Your task to perform on an android device: Open the phone app and click the voicemail tab. Image 0: 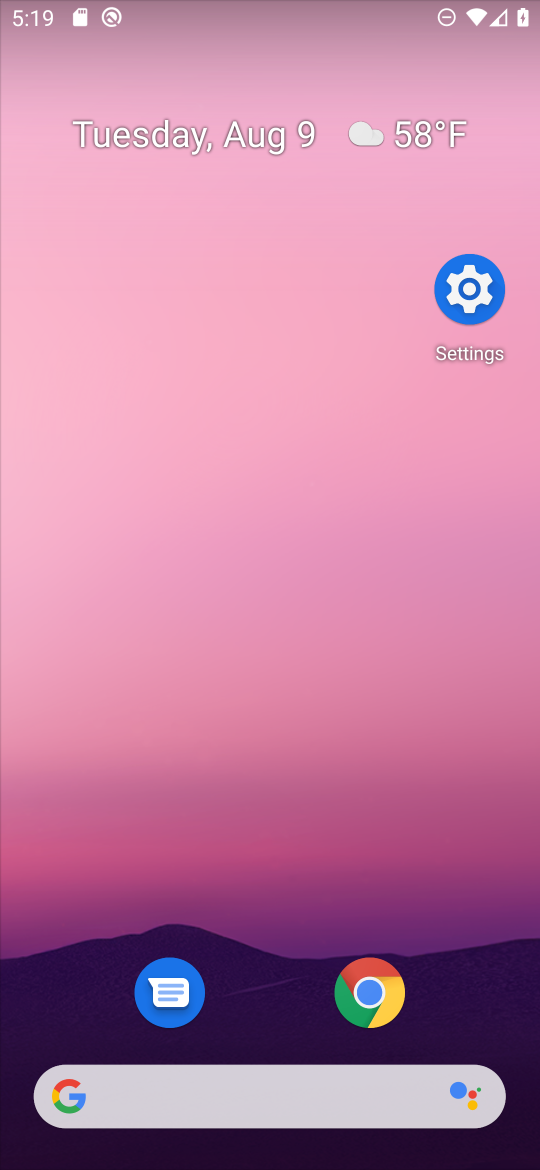
Step 0: drag from (270, 1076) to (321, 45)
Your task to perform on an android device: Open the phone app and click the voicemail tab. Image 1: 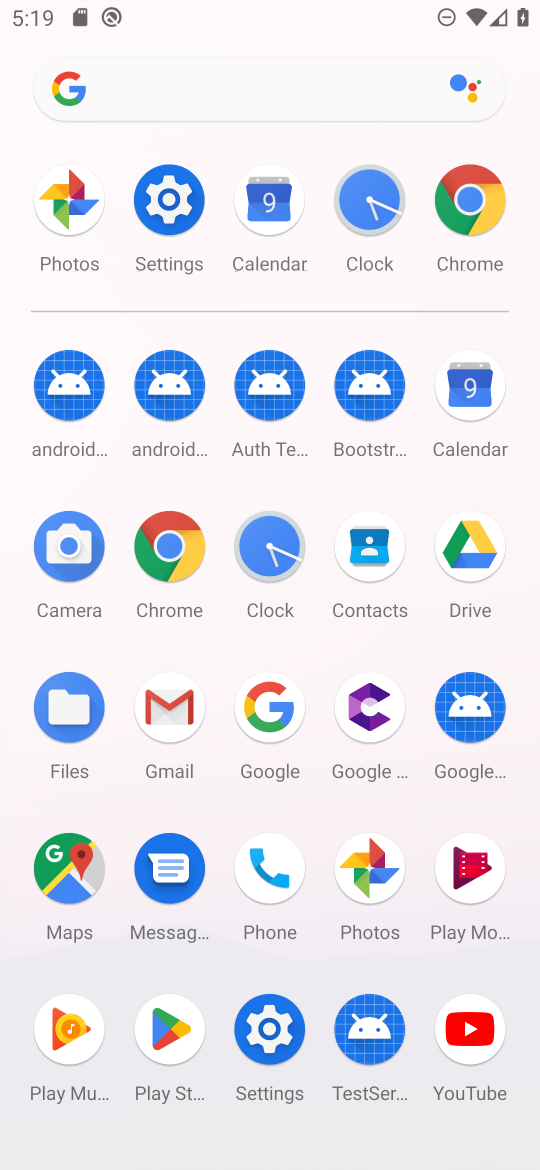
Step 1: click (262, 848)
Your task to perform on an android device: Open the phone app and click the voicemail tab. Image 2: 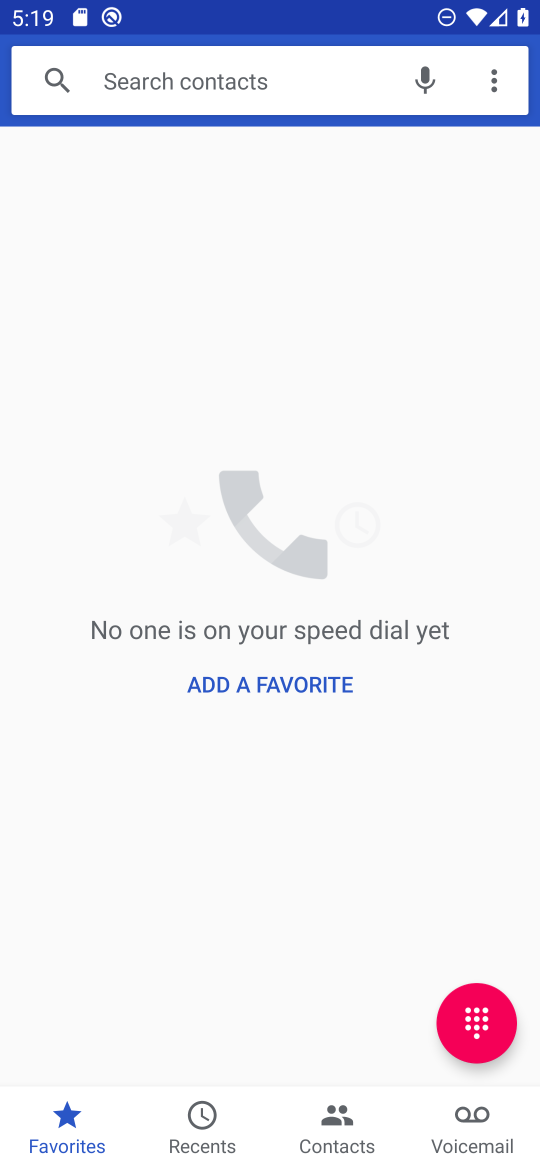
Step 2: click (470, 1111)
Your task to perform on an android device: Open the phone app and click the voicemail tab. Image 3: 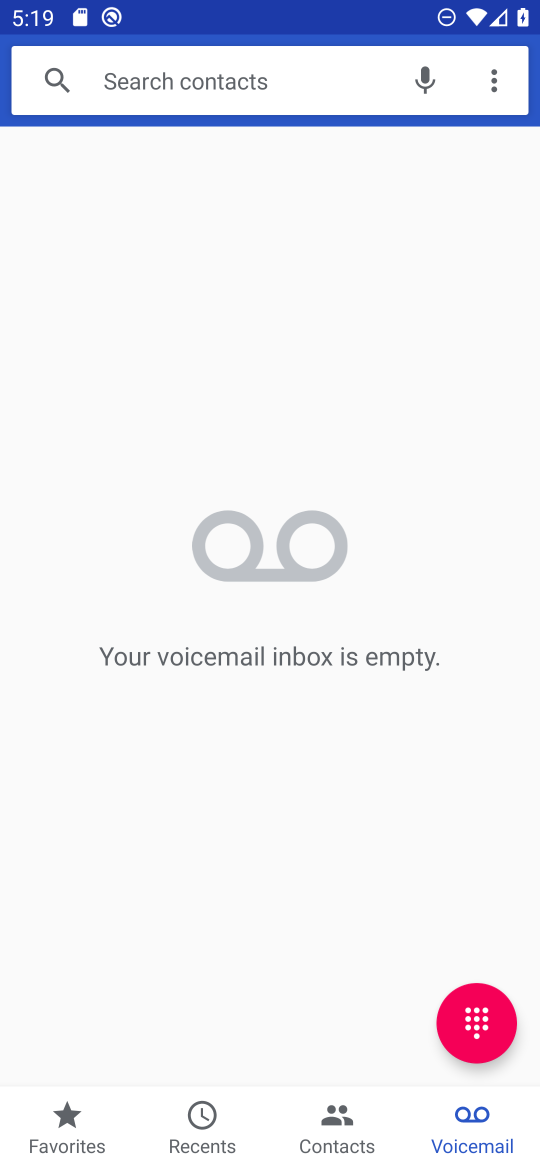
Step 3: task complete